Your task to perform on an android device: Go to internet settings Image 0: 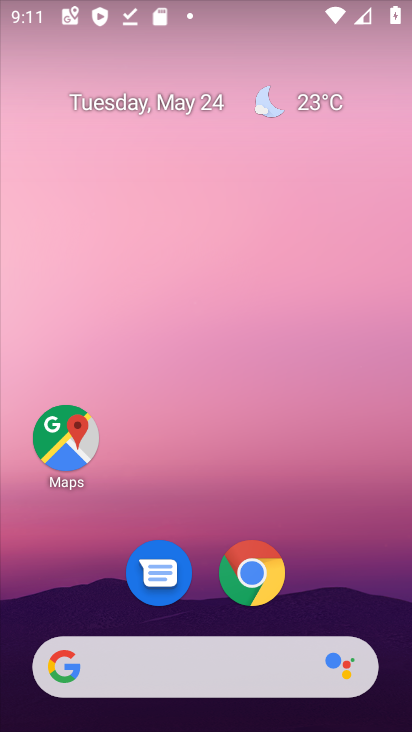
Step 0: drag from (308, 691) to (261, 291)
Your task to perform on an android device: Go to internet settings Image 1: 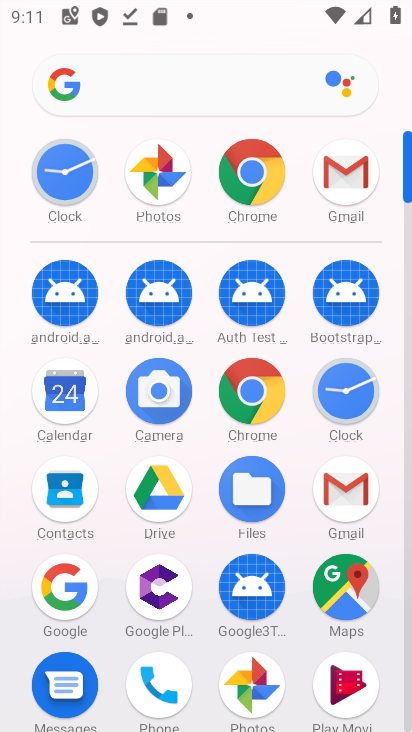
Step 1: drag from (299, 617) to (275, 297)
Your task to perform on an android device: Go to internet settings Image 2: 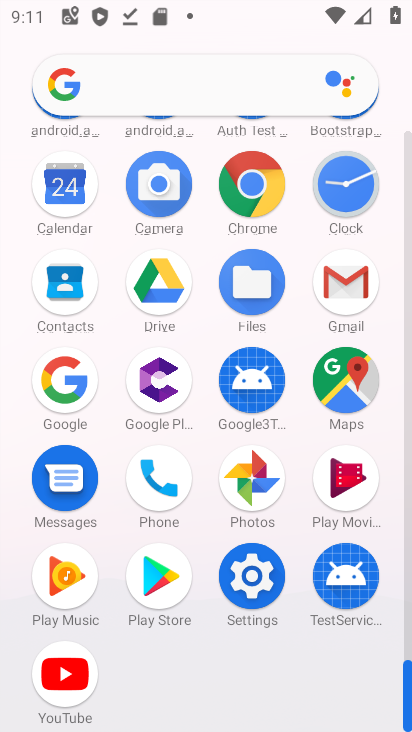
Step 2: click (242, 573)
Your task to perform on an android device: Go to internet settings Image 3: 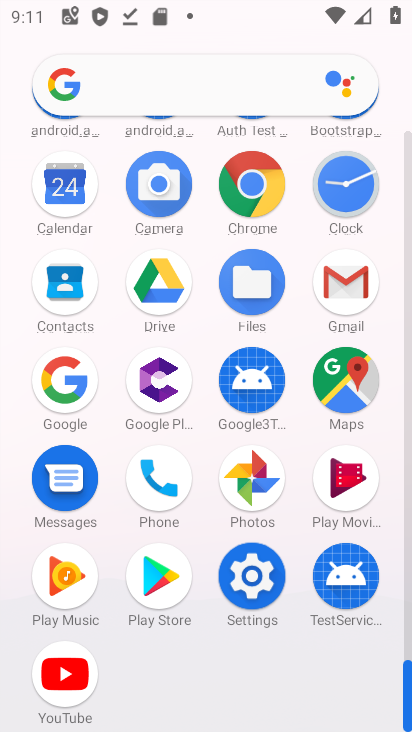
Step 3: click (246, 574)
Your task to perform on an android device: Go to internet settings Image 4: 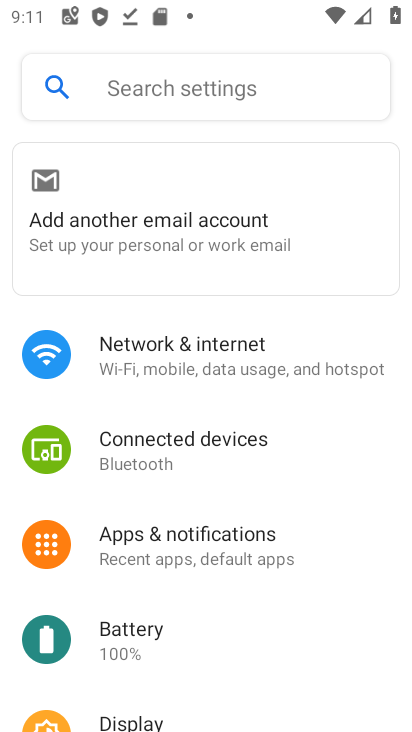
Step 4: drag from (207, 608) to (204, 428)
Your task to perform on an android device: Go to internet settings Image 5: 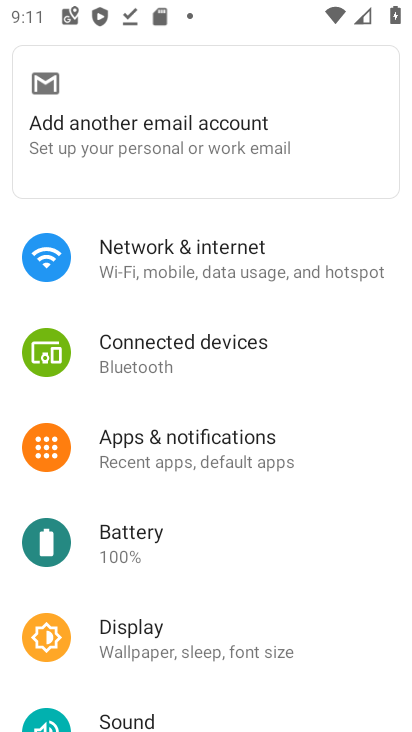
Step 5: click (214, 263)
Your task to perform on an android device: Go to internet settings Image 6: 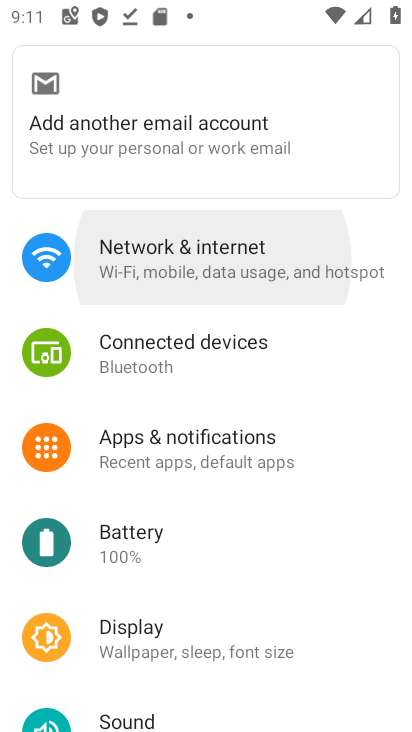
Step 6: click (214, 263)
Your task to perform on an android device: Go to internet settings Image 7: 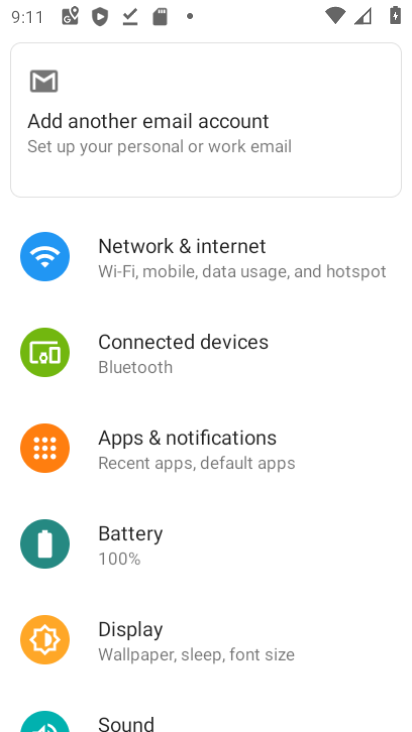
Step 7: click (214, 263)
Your task to perform on an android device: Go to internet settings Image 8: 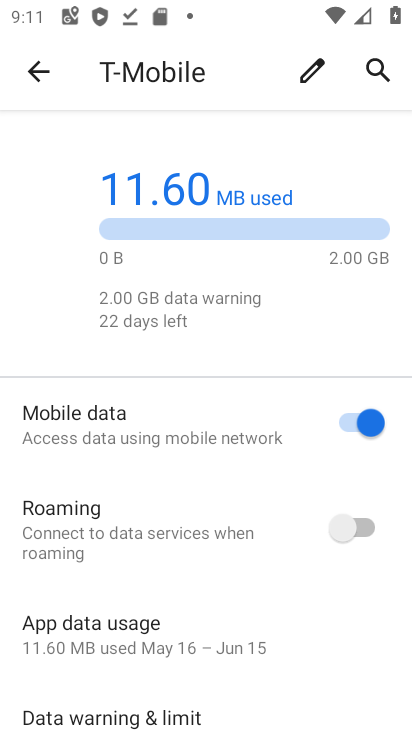
Step 8: click (35, 73)
Your task to perform on an android device: Go to internet settings Image 9: 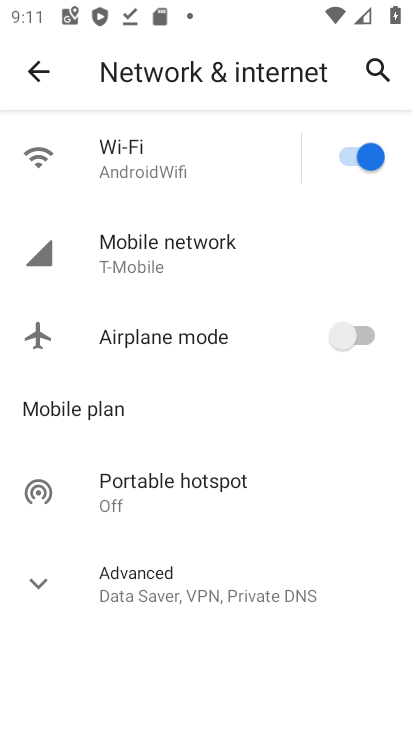
Step 9: task complete